Your task to perform on an android device: find snoozed emails in the gmail app Image 0: 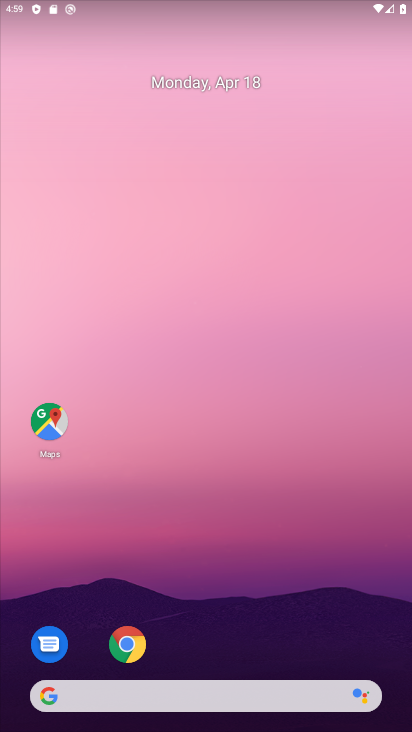
Step 0: drag from (219, 612) to (211, 59)
Your task to perform on an android device: find snoozed emails in the gmail app Image 1: 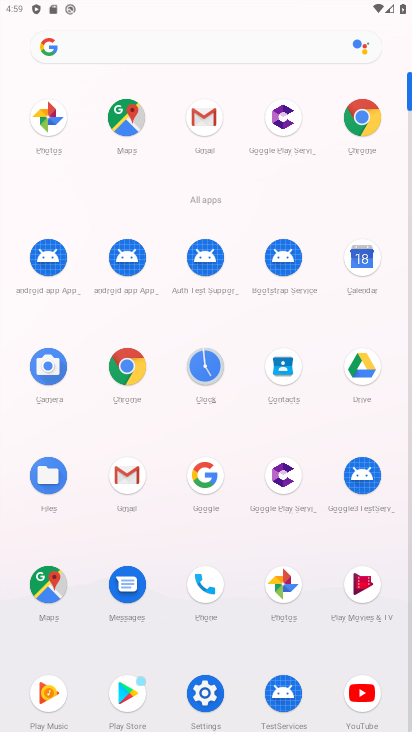
Step 1: click (204, 113)
Your task to perform on an android device: find snoozed emails in the gmail app Image 2: 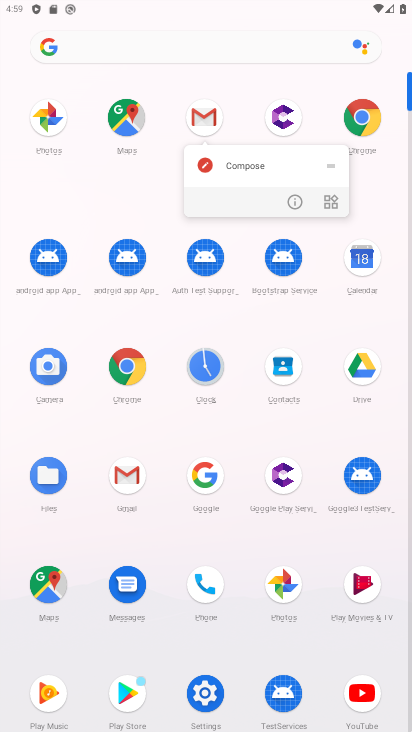
Step 2: click (205, 109)
Your task to perform on an android device: find snoozed emails in the gmail app Image 3: 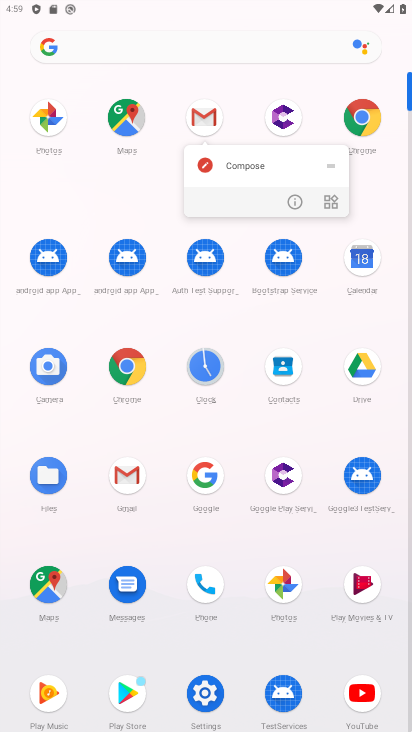
Step 3: click (198, 115)
Your task to perform on an android device: find snoozed emails in the gmail app Image 4: 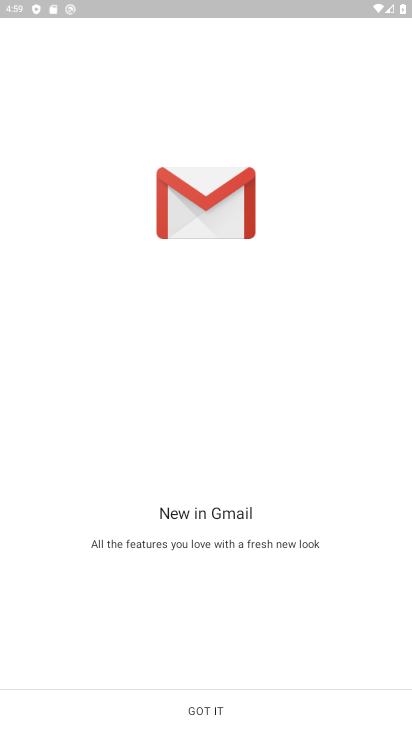
Step 4: click (191, 708)
Your task to perform on an android device: find snoozed emails in the gmail app Image 5: 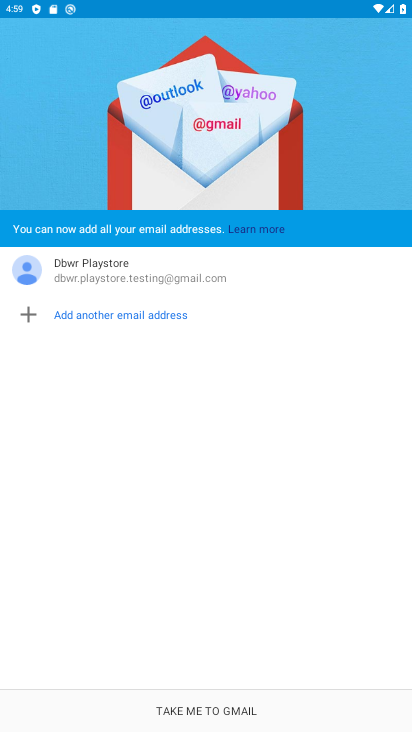
Step 5: click (208, 704)
Your task to perform on an android device: find snoozed emails in the gmail app Image 6: 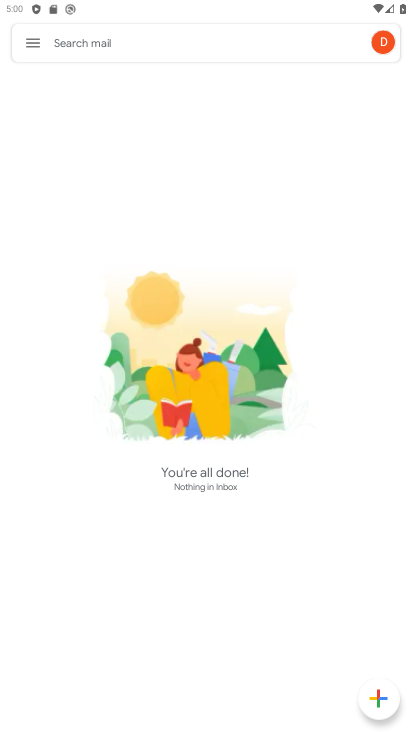
Step 6: click (31, 36)
Your task to perform on an android device: find snoozed emails in the gmail app Image 7: 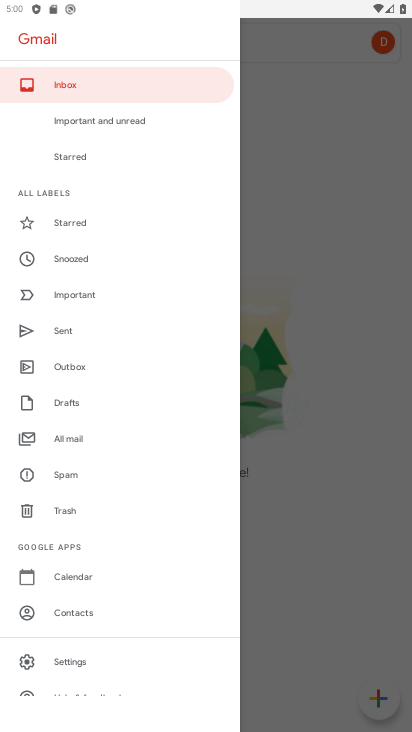
Step 7: click (78, 262)
Your task to perform on an android device: find snoozed emails in the gmail app Image 8: 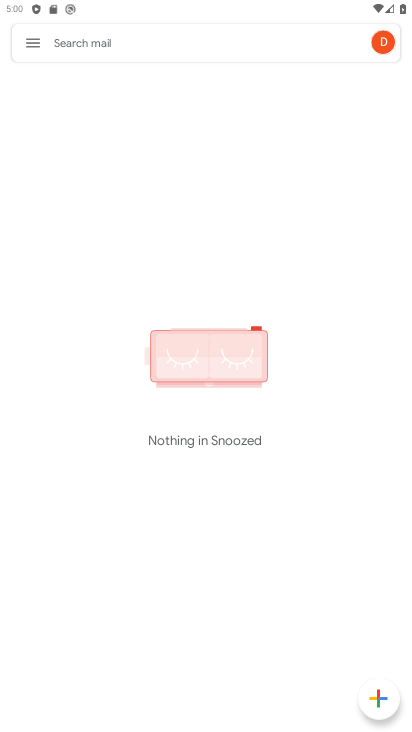
Step 8: task complete